Your task to perform on an android device: turn on notifications settings in the gmail app Image 0: 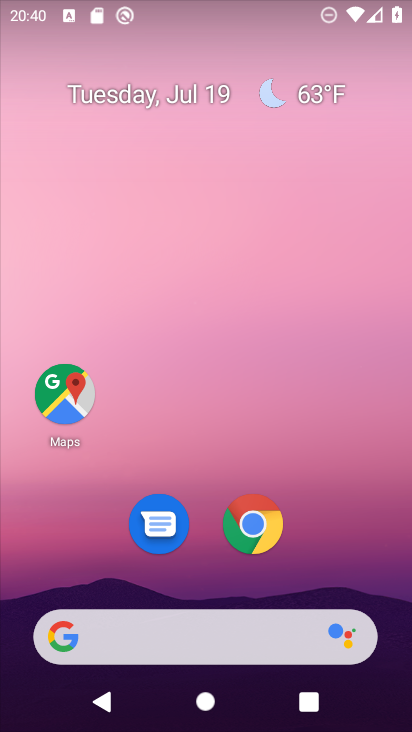
Step 0: drag from (317, 522) to (313, 35)
Your task to perform on an android device: turn on notifications settings in the gmail app Image 1: 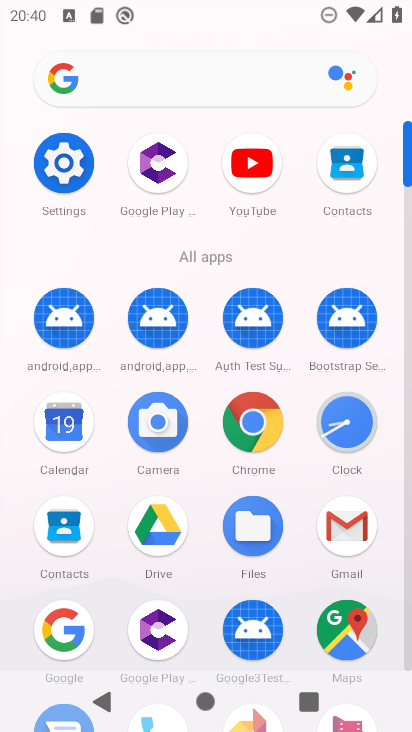
Step 1: click (348, 529)
Your task to perform on an android device: turn on notifications settings in the gmail app Image 2: 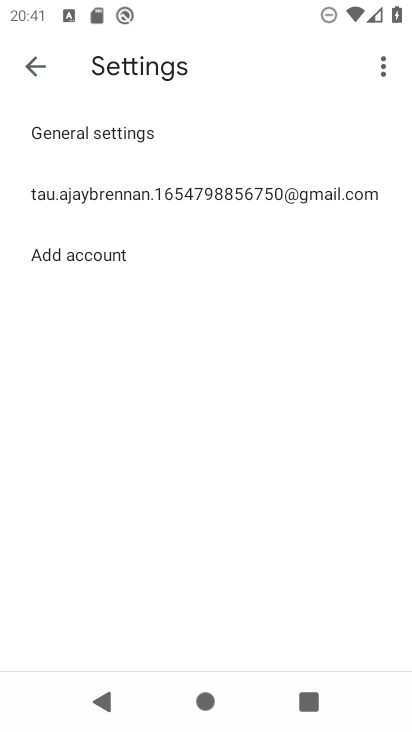
Step 2: click (149, 184)
Your task to perform on an android device: turn on notifications settings in the gmail app Image 3: 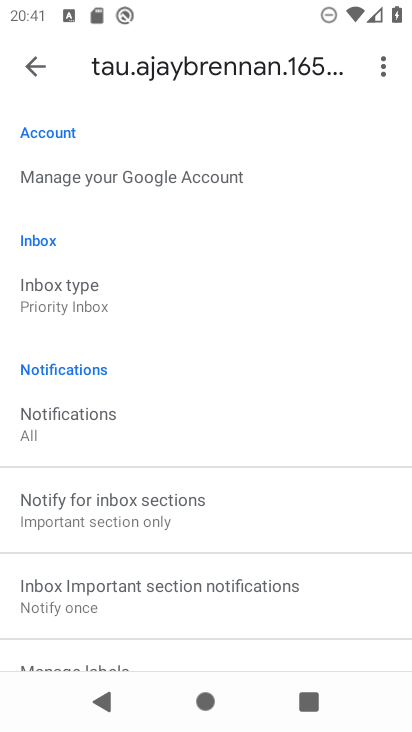
Step 3: drag from (270, 538) to (275, 166)
Your task to perform on an android device: turn on notifications settings in the gmail app Image 4: 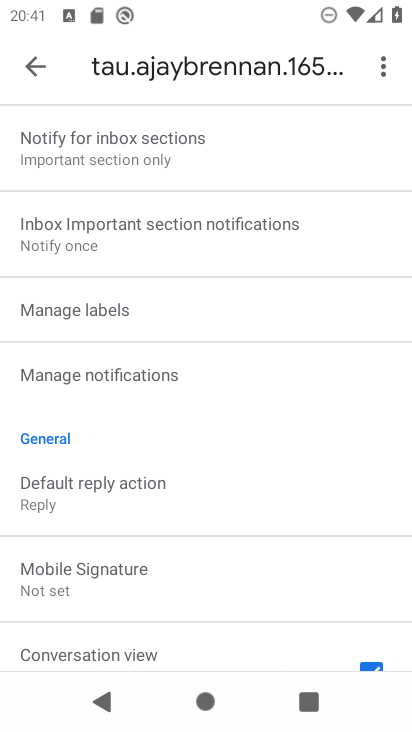
Step 4: click (168, 372)
Your task to perform on an android device: turn on notifications settings in the gmail app Image 5: 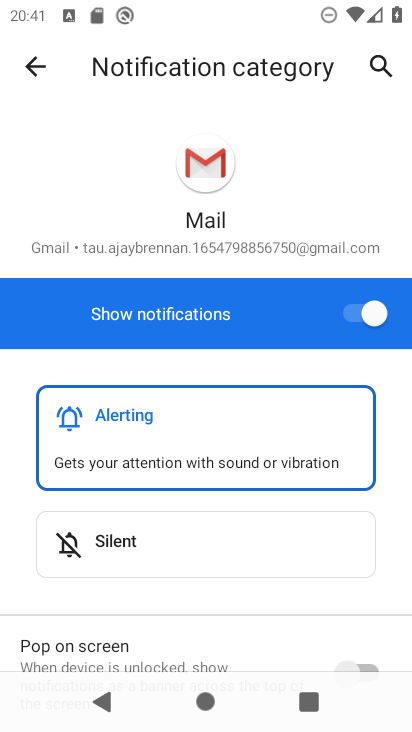
Step 5: task complete